Your task to perform on an android device: Search for flights from NYC to London Image 0: 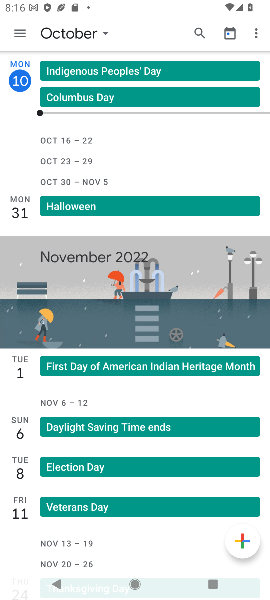
Step 0: press home button
Your task to perform on an android device: Search for flights from NYC to London Image 1: 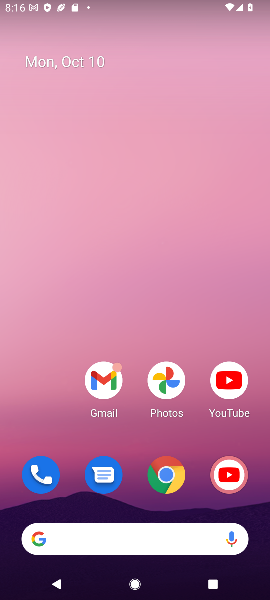
Step 1: click (166, 474)
Your task to perform on an android device: Search for flights from NYC to London Image 2: 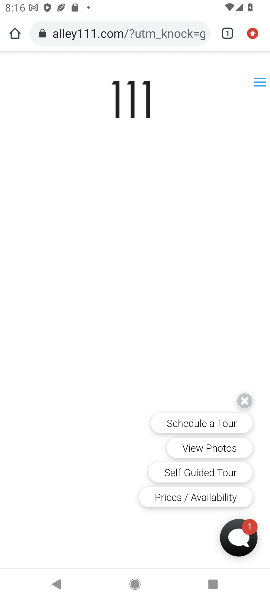
Step 2: click (146, 37)
Your task to perform on an android device: Search for flights from NYC to London Image 3: 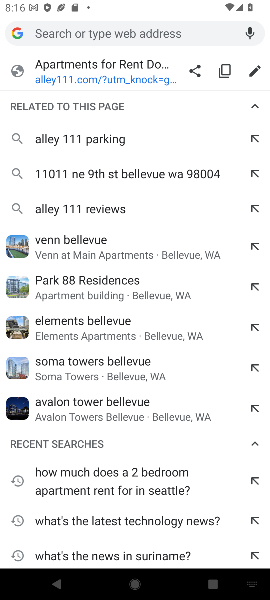
Step 3: type "flights from NYC to London"
Your task to perform on an android device: Search for flights from NYC to London Image 4: 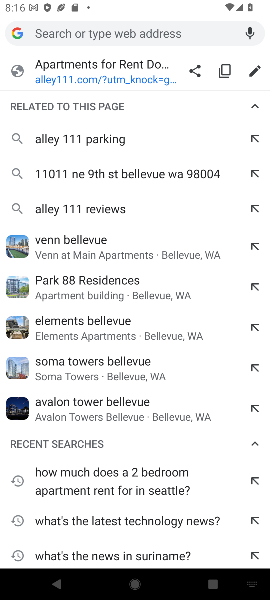
Step 4: click (147, 30)
Your task to perform on an android device: Search for flights from NYC to London Image 5: 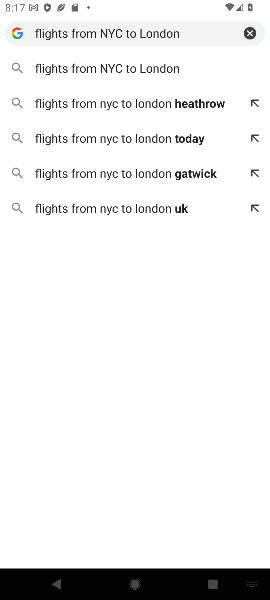
Step 5: click (140, 64)
Your task to perform on an android device: Search for flights from NYC to London Image 6: 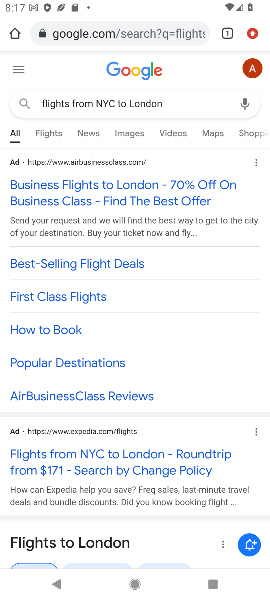
Step 6: click (148, 196)
Your task to perform on an android device: Search for flights from NYC to London Image 7: 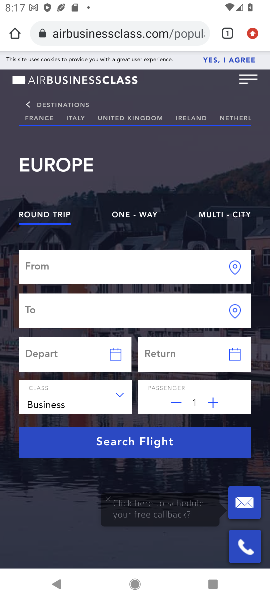
Step 7: task complete